Your task to perform on an android device: toggle javascript in the chrome app Image 0: 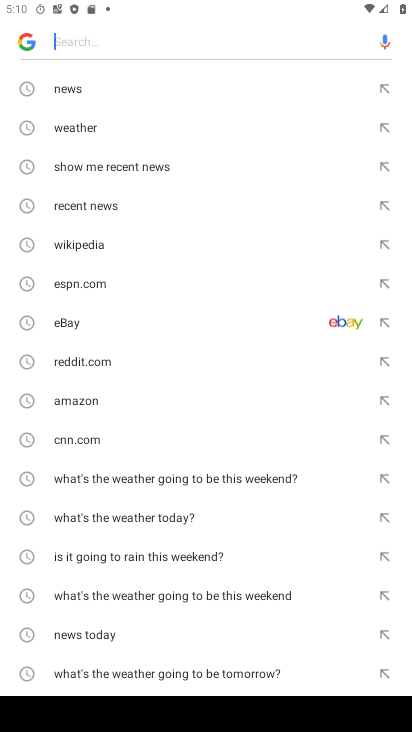
Step 0: press home button
Your task to perform on an android device: toggle javascript in the chrome app Image 1: 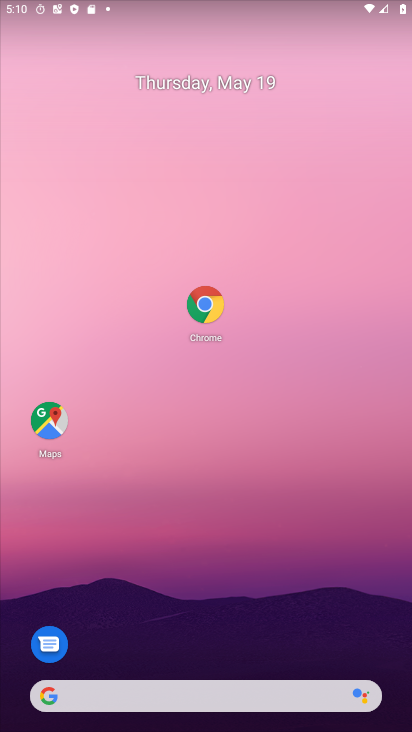
Step 1: drag from (182, 678) to (128, 249)
Your task to perform on an android device: toggle javascript in the chrome app Image 2: 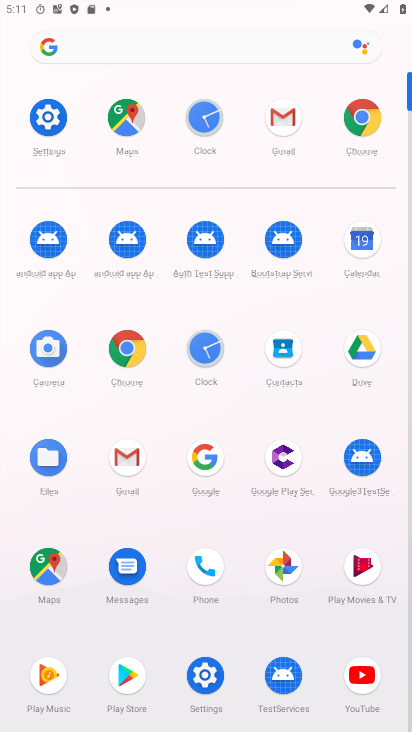
Step 2: click (135, 327)
Your task to perform on an android device: toggle javascript in the chrome app Image 3: 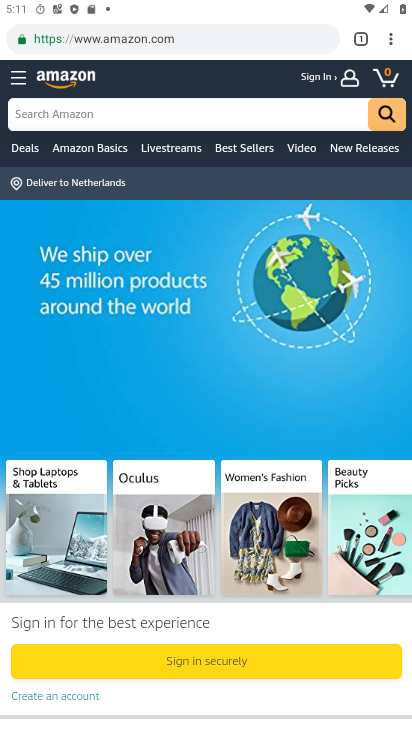
Step 3: click (387, 38)
Your task to perform on an android device: toggle javascript in the chrome app Image 4: 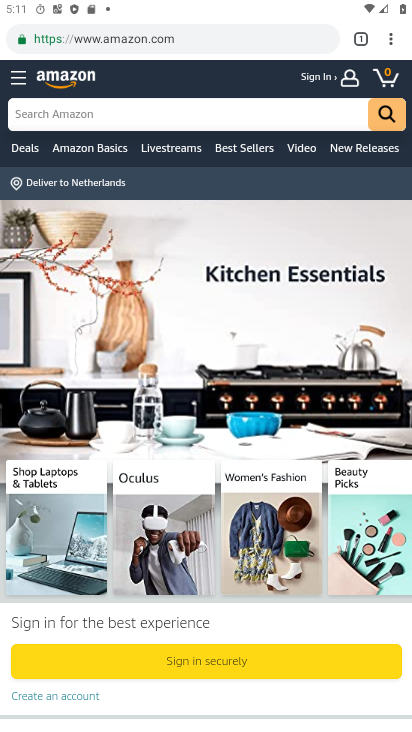
Step 4: click (394, 45)
Your task to perform on an android device: toggle javascript in the chrome app Image 5: 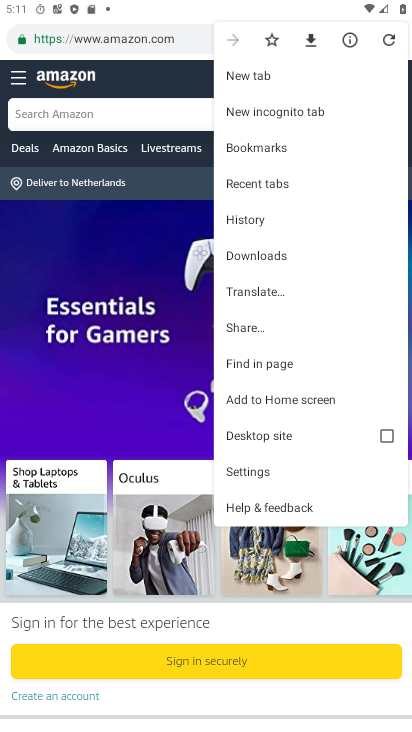
Step 5: click (255, 472)
Your task to perform on an android device: toggle javascript in the chrome app Image 6: 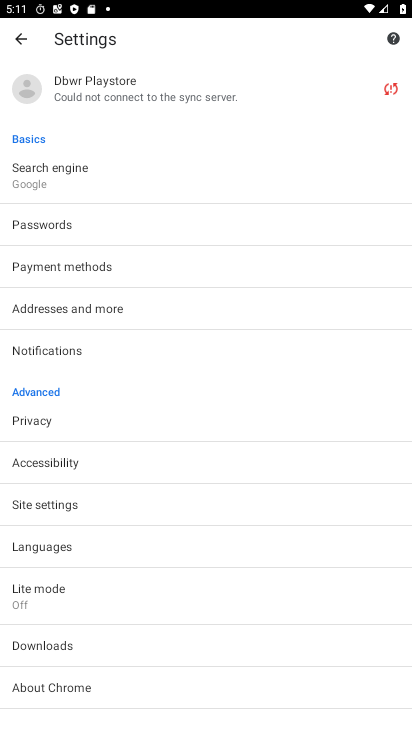
Step 6: click (24, 509)
Your task to perform on an android device: toggle javascript in the chrome app Image 7: 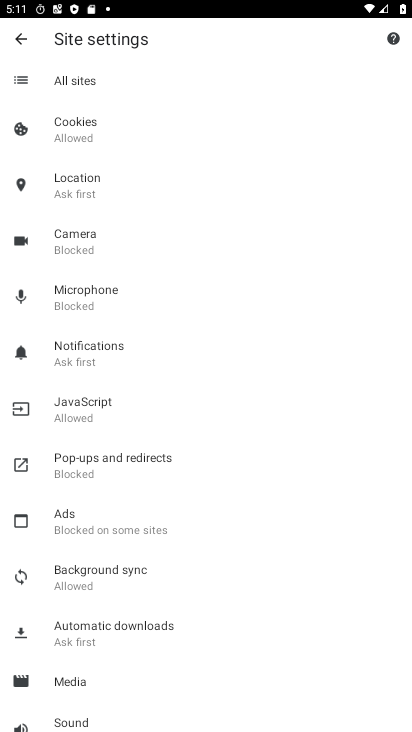
Step 7: click (83, 420)
Your task to perform on an android device: toggle javascript in the chrome app Image 8: 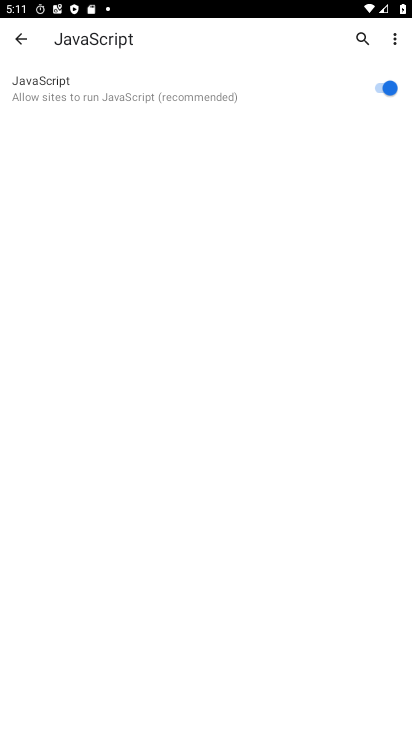
Step 8: click (381, 86)
Your task to perform on an android device: toggle javascript in the chrome app Image 9: 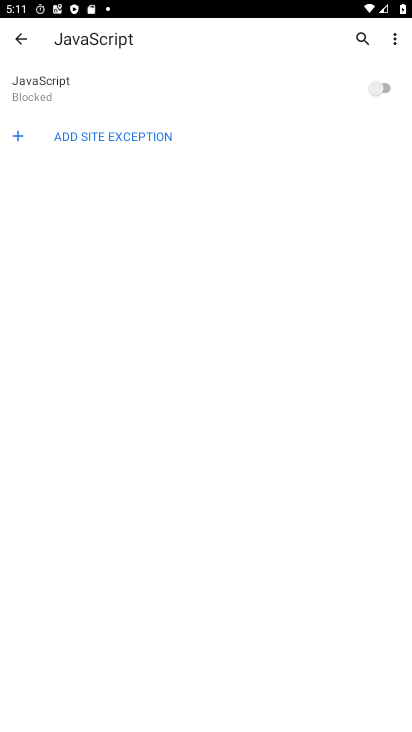
Step 9: task complete